Your task to perform on an android device: open a bookmark in the chrome app Image 0: 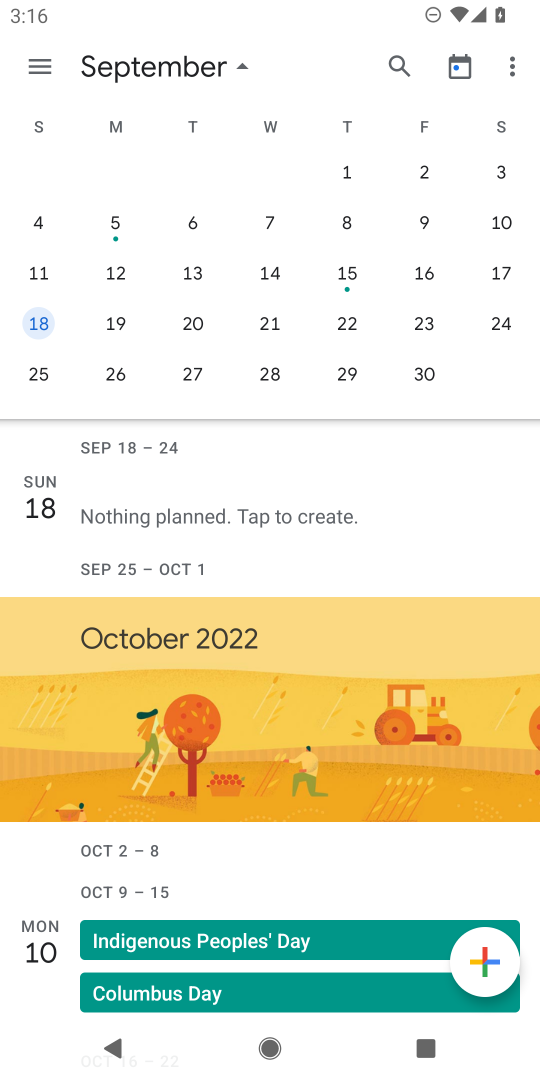
Step 0: press home button
Your task to perform on an android device: open a bookmark in the chrome app Image 1: 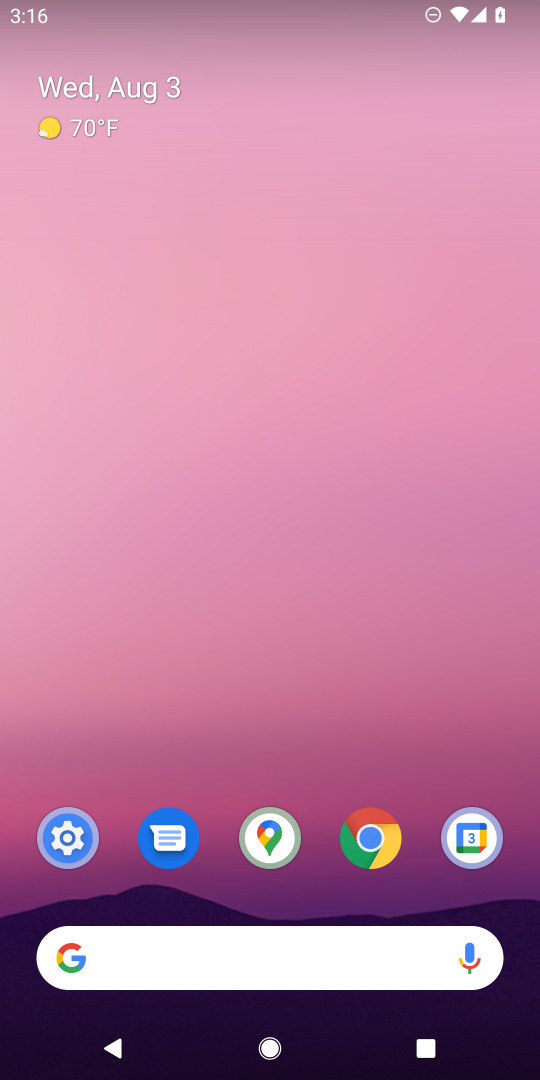
Step 1: click (361, 846)
Your task to perform on an android device: open a bookmark in the chrome app Image 2: 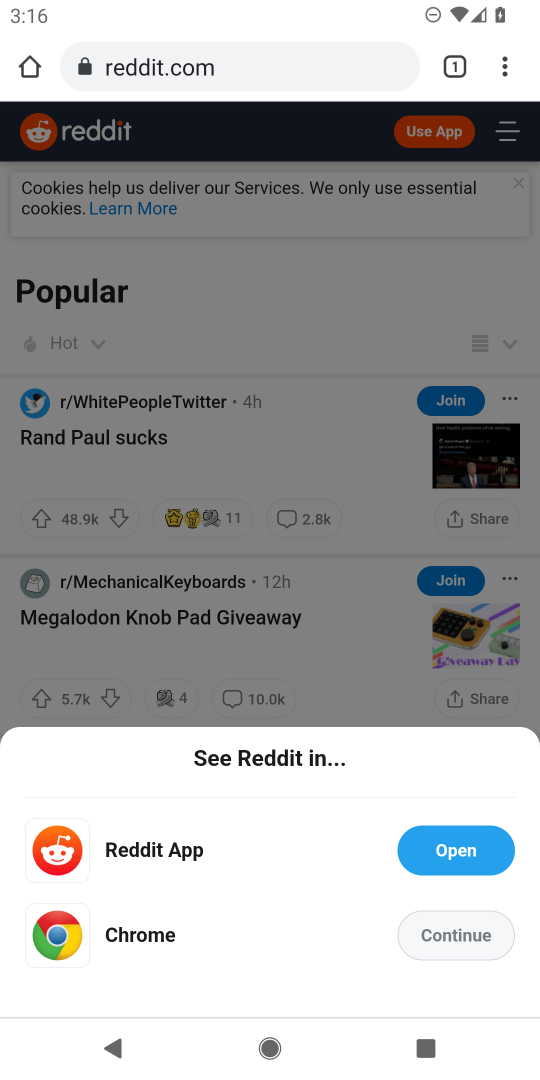
Step 2: click (495, 76)
Your task to perform on an android device: open a bookmark in the chrome app Image 3: 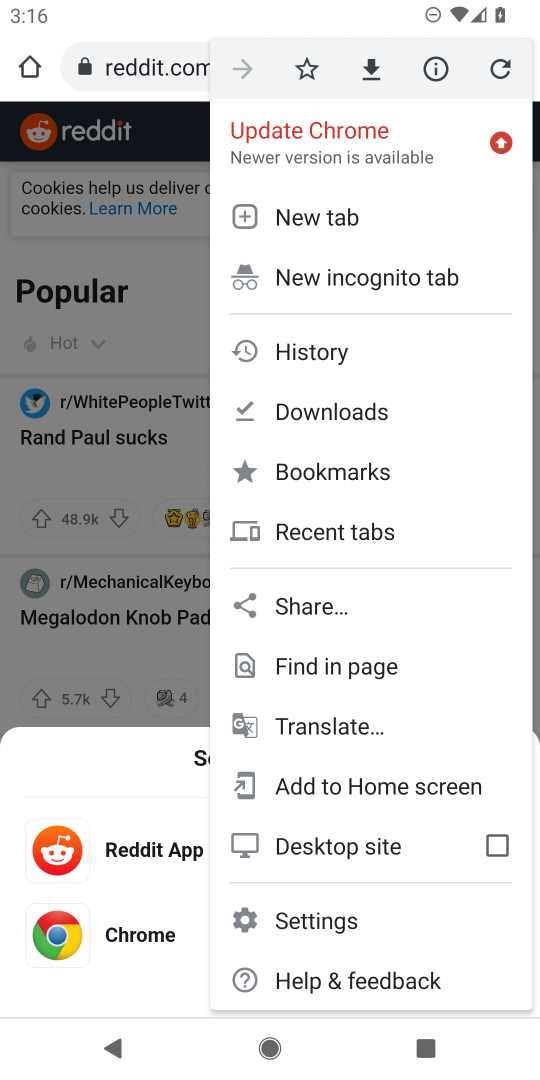
Step 3: click (264, 488)
Your task to perform on an android device: open a bookmark in the chrome app Image 4: 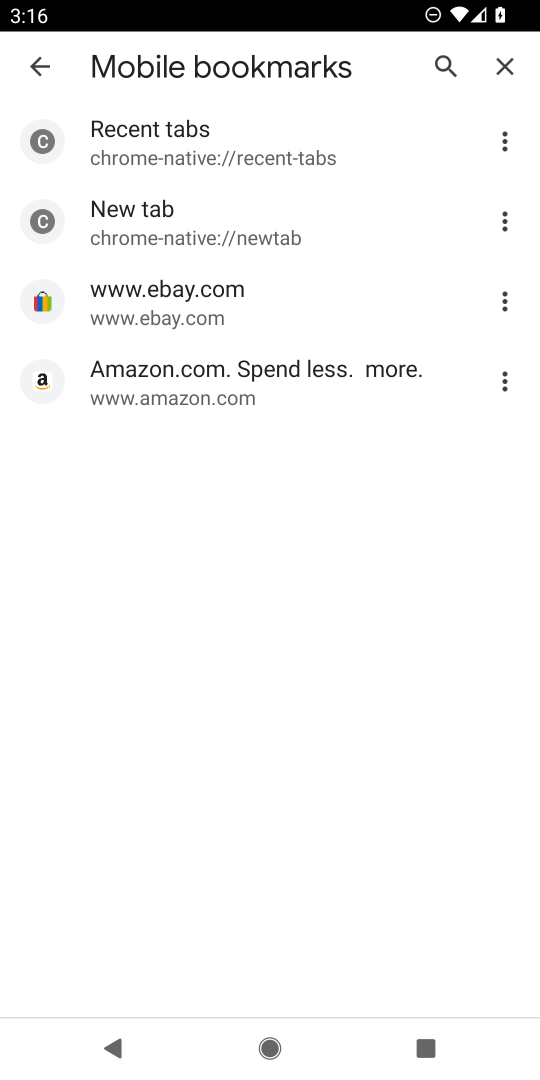
Step 4: click (133, 284)
Your task to perform on an android device: open a bookmark in the chrome app Image 5: 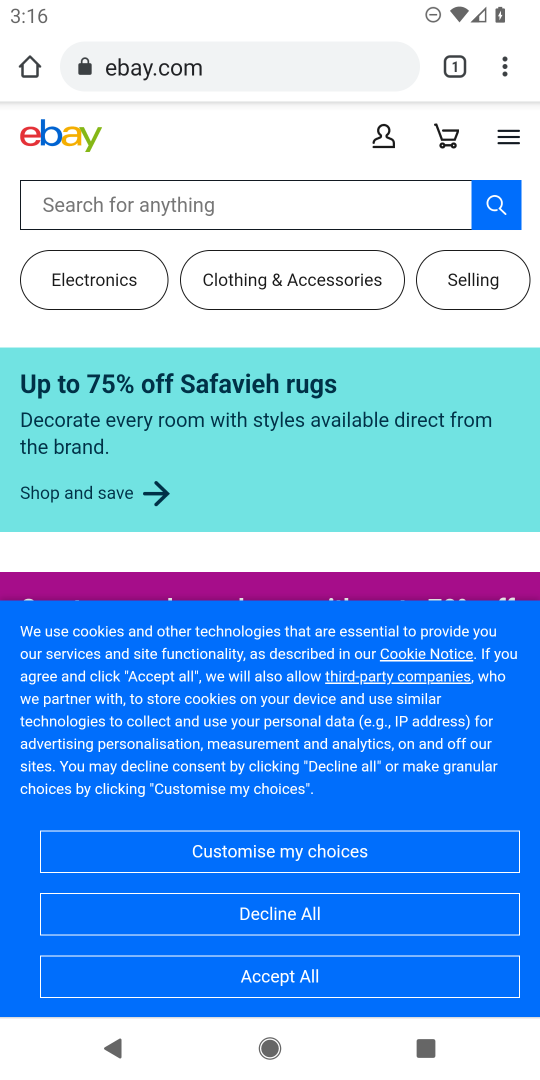
Step 5: task complete